Your task to perform on an android device: toggle priority inbox in the gmail app Image 0: 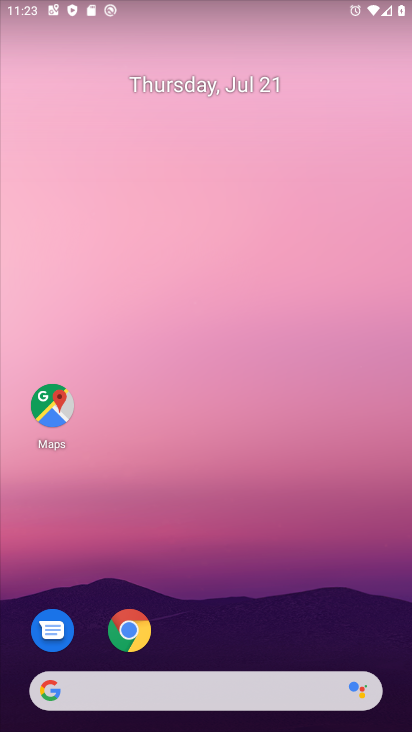
Step 0: drag from (190, 655) to (409, 680)
Your task to perform on an android device: toggle priority inbox in the gmail app Image 1: 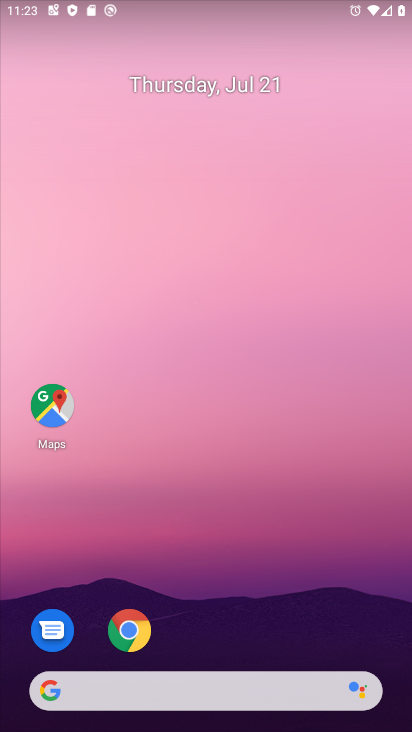
Step 1: drag from (237, 671) to (230, 37)
Your task to perform on an android device: toggle priority inbox in the gmail app Image 2: 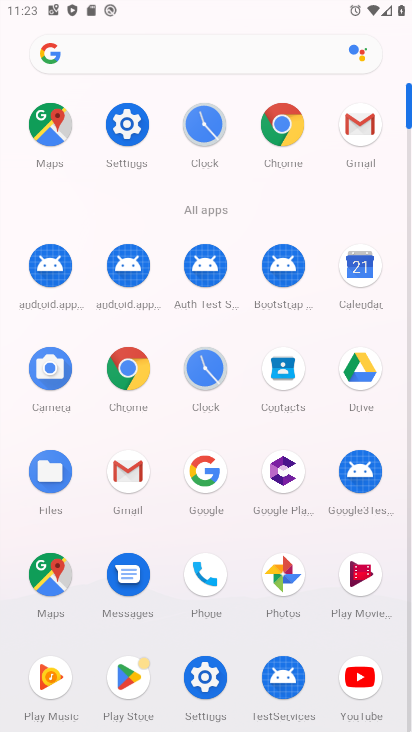
Step 2: click (132, 476)
Your task to perform on an android device: toggle priority inbox in the gmail app Image 3: 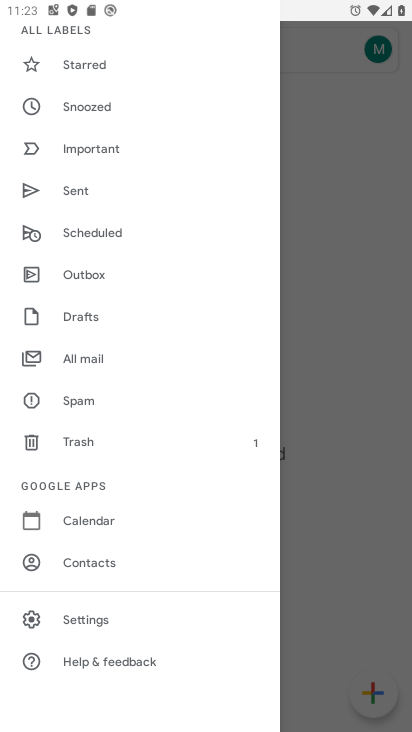
Step 3: click (107, 633)
Your task to perform on an android device: toggle priority inbox in the gmail app Image 4: 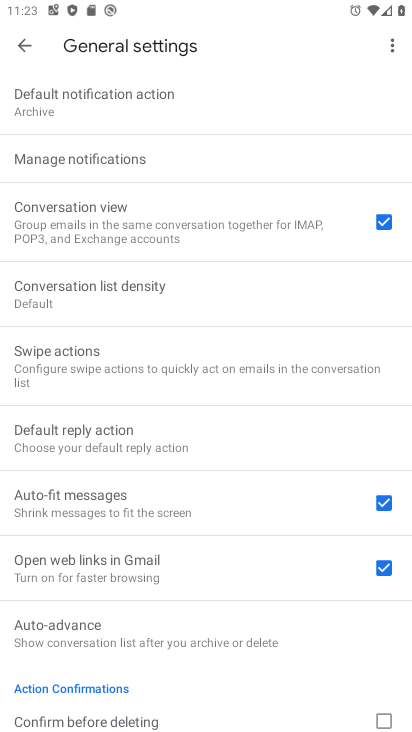
Step 4: click (24, 46)
Your task to perform on an android device: toggle priority inbox in the gmail app Image 5: 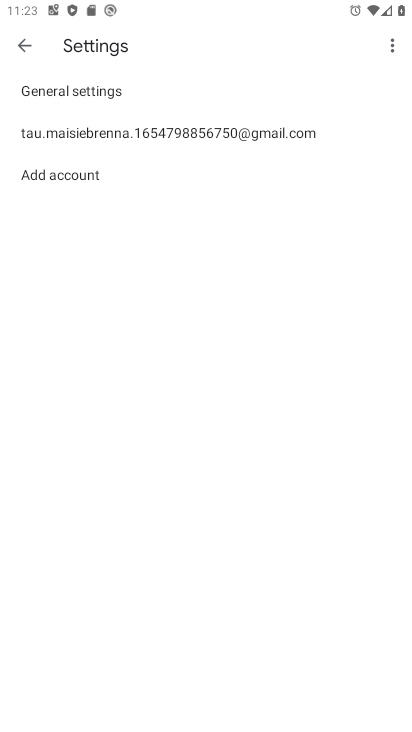
Step 5: click (75, 124)
Your task to perform on an android device: toggle priority inbox in the gmail app Image 6: 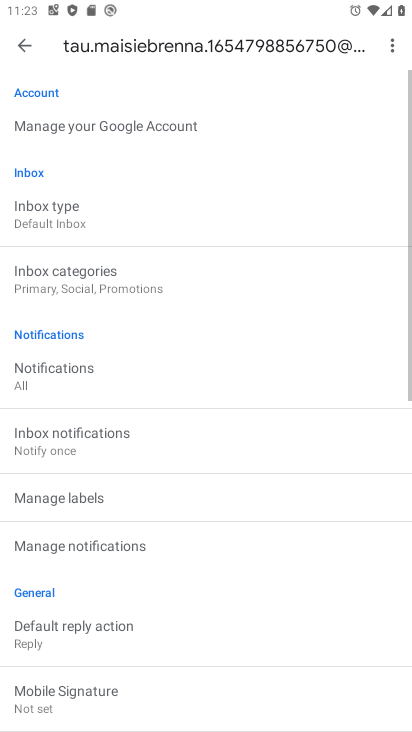
Step 6: click (82, 219)
Your task to perform on an android device: toggle priority inbox in the gmail app Image 7: 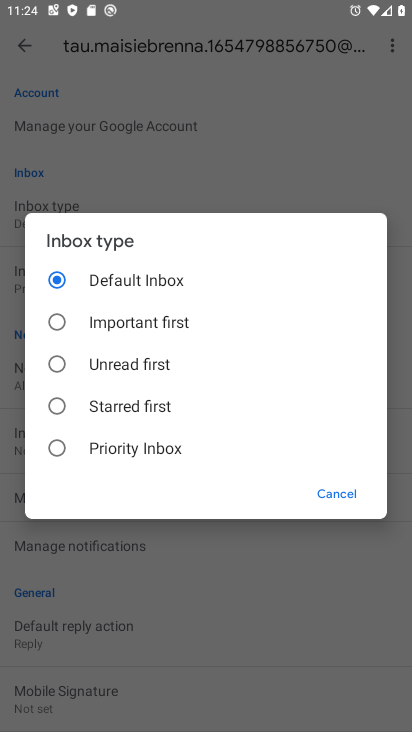
Step 7: click (98, 450)
Your task to perform on an android device: toggle priority inbox in the gmail app Image 8: 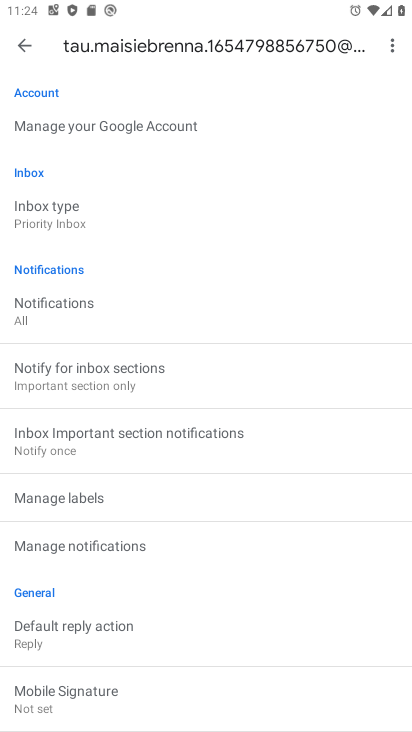
Step 8: task complete